Your task to perform on an android device: turn off location history Image 0: 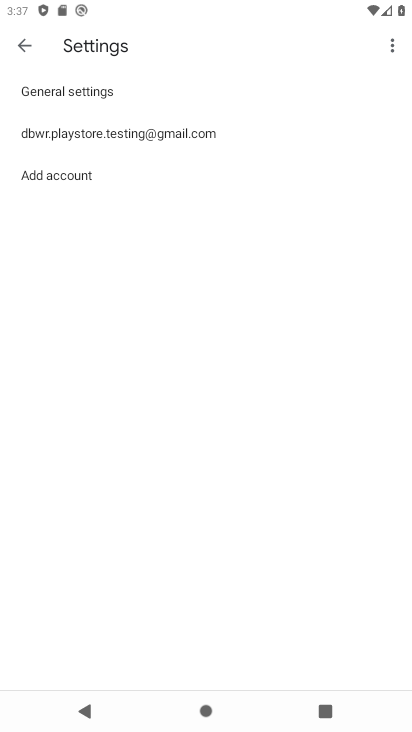
Step 0: press home button
Your task to perform on an android device: turn off location history Image 1: 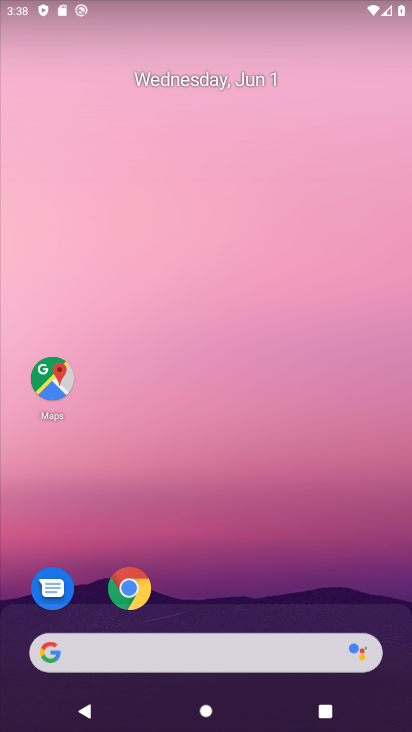
Step 1: click (57, 384)
Your task to perform on an android device: turn off location history Image 2: 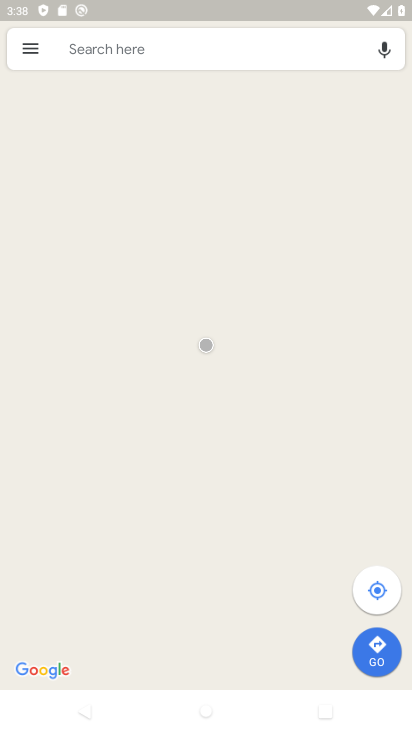
Step 2: click (34, 53)
Your task to perform on an android device: turn off location history Image 3: 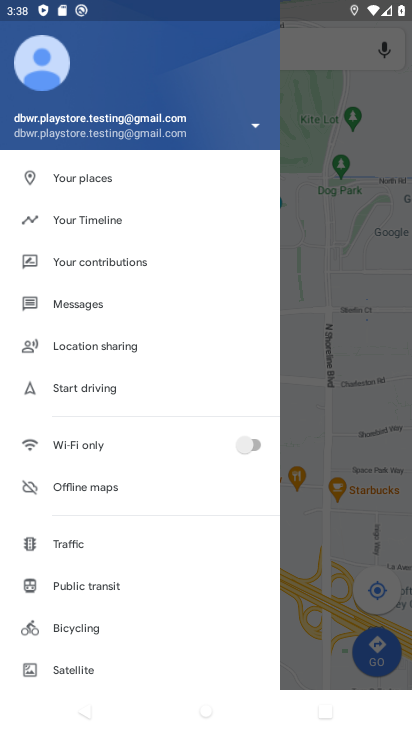
Step 3: click (97, 226)
Your task to perform on an android device: turn off location history Image 4: 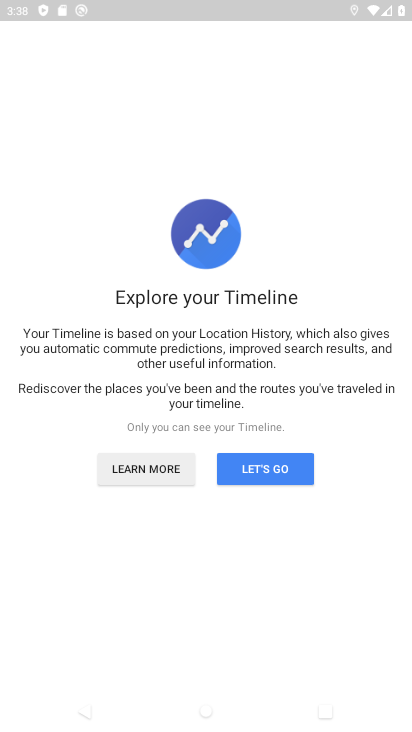
Step 4: click (251, 464)
Your task to perform on an android device: turn off location history Image 5: 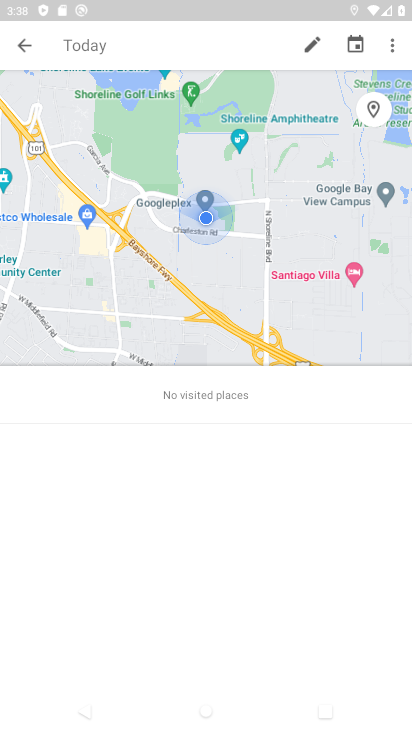
Step 5: click (390, 53)
Your task to perform on an android device: turn off location history Image 6: 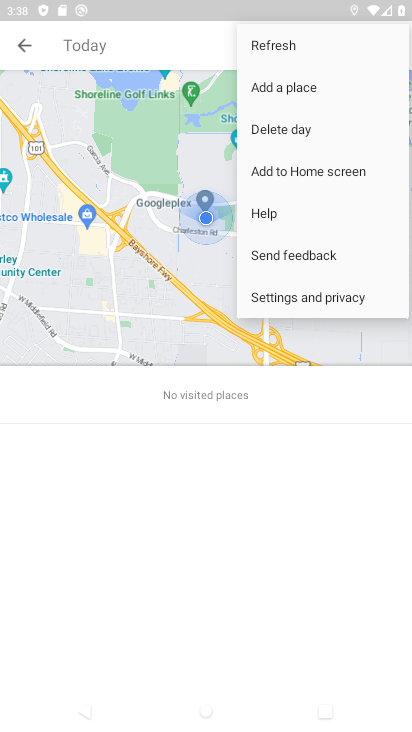
Step 6: click (355, 294)
Your task to perform on an android device: turn off location history Image 7: 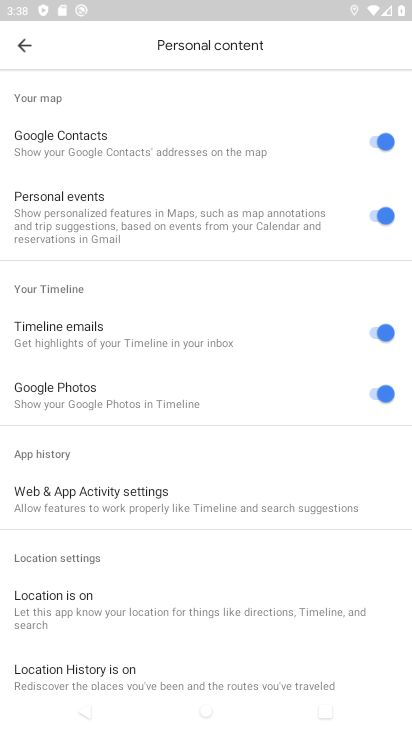
Step 7: drag from (176, 649) to (178, 357)
Your task to perform on an android device: turn off location history Image 8: 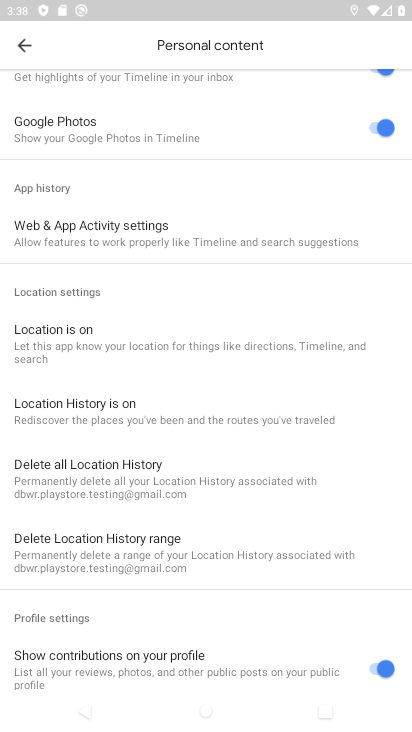
Step 8: click (174, 427)
Your task to perform on an android device: turn off location history Image 9: 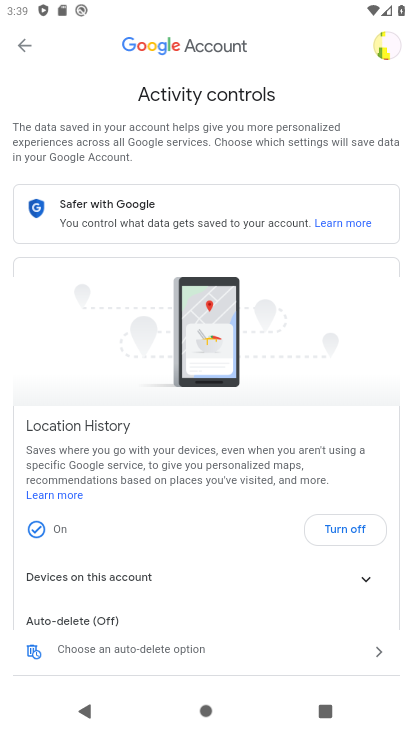
Step 9: click (332, 526)
Your task to perform on an android device: turn off location history Image 10: 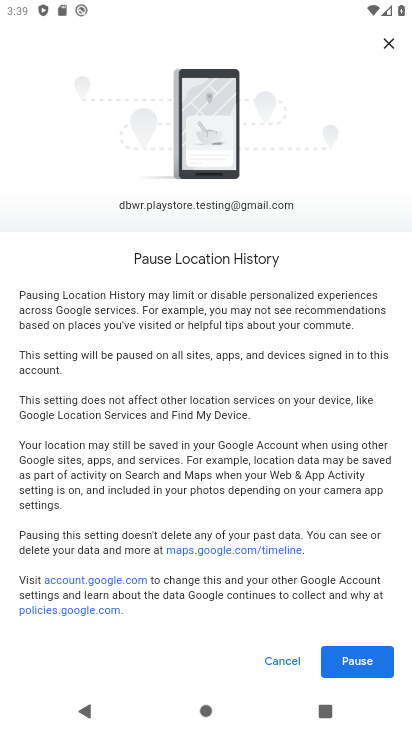
Step 10: click (366, 658)
Your task to perform on an android device: turn off location history Image 11: 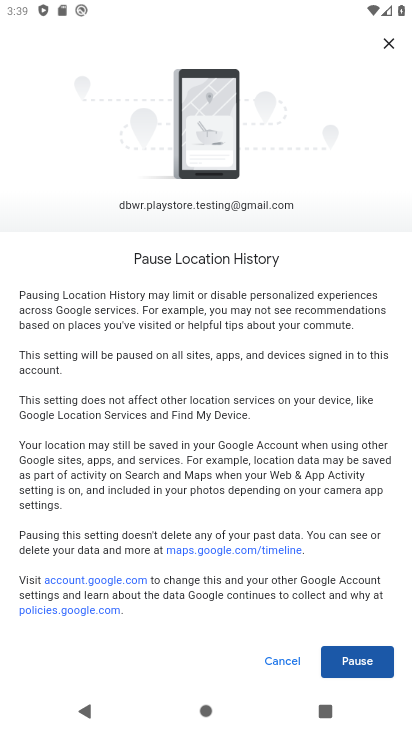
Step 11: click (364, 662)
Your task to perform on an android device: turn off location history Image 12: 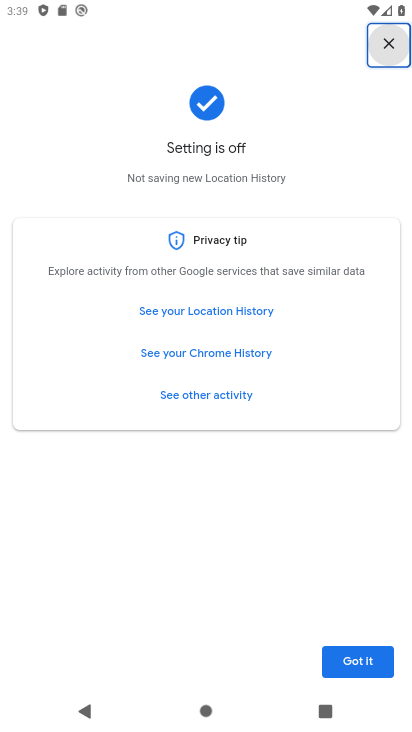
Step 12: click (358, 657)
Your task to perform on an android device: turn off location history Image 13: 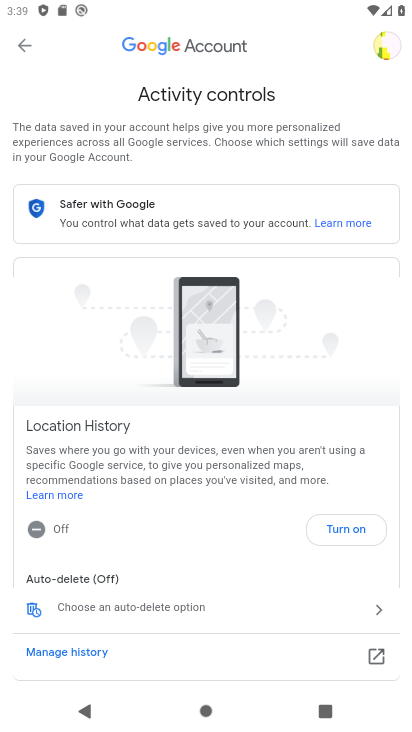
Step 13: task complete